Your task to perform on an android device: all mails in gmail Image 0: 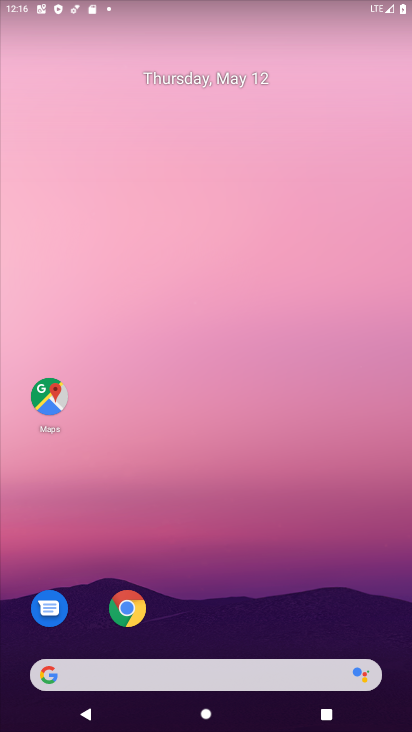
Step 0: drag from (378, 573) to (405, 49)
Your task to perform on an android device: all mails in gmail Image 1: 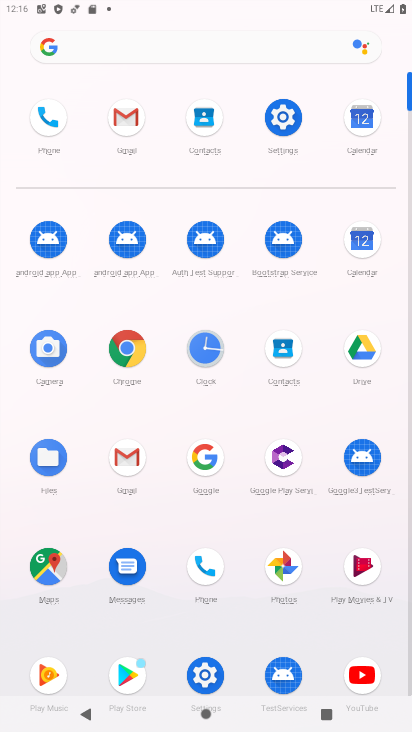
Step 1: click (129, 122)
Your task to perform on an android device: all mails in gmail Image 2: 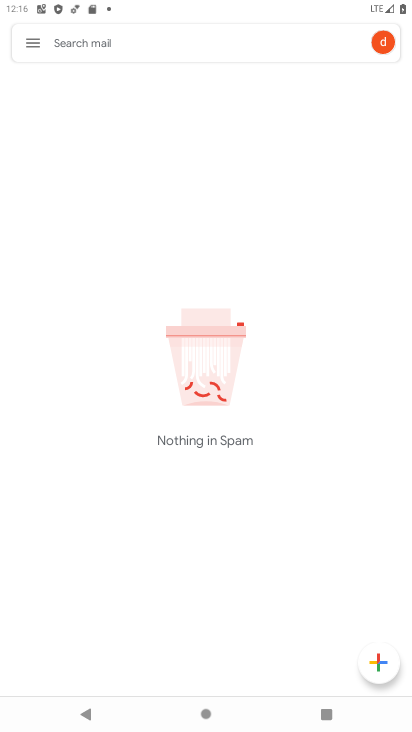
Step 2: click (28, 50)
Your task to perform on an android device: all mails in gmail Image 3: 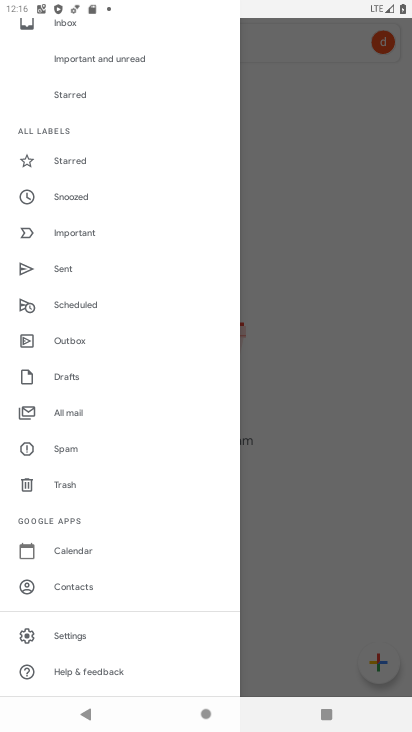
Step 3: click (69, 413)
Your task to perform on an android device: all mails in gmail Image 4: 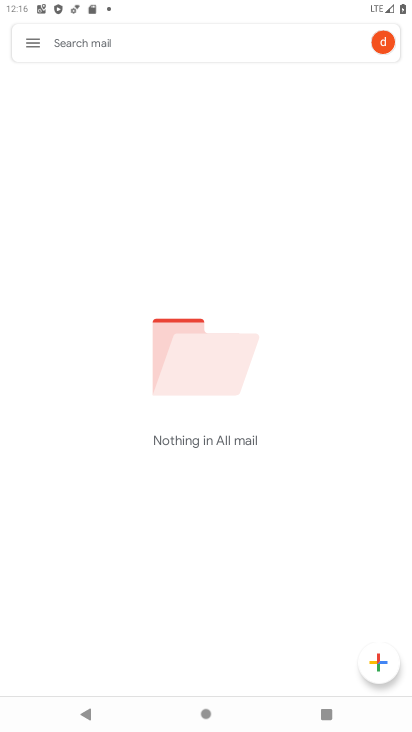
Step 4: task complete